Your task to perform on an android device: Turn on the flashlight Image 0: 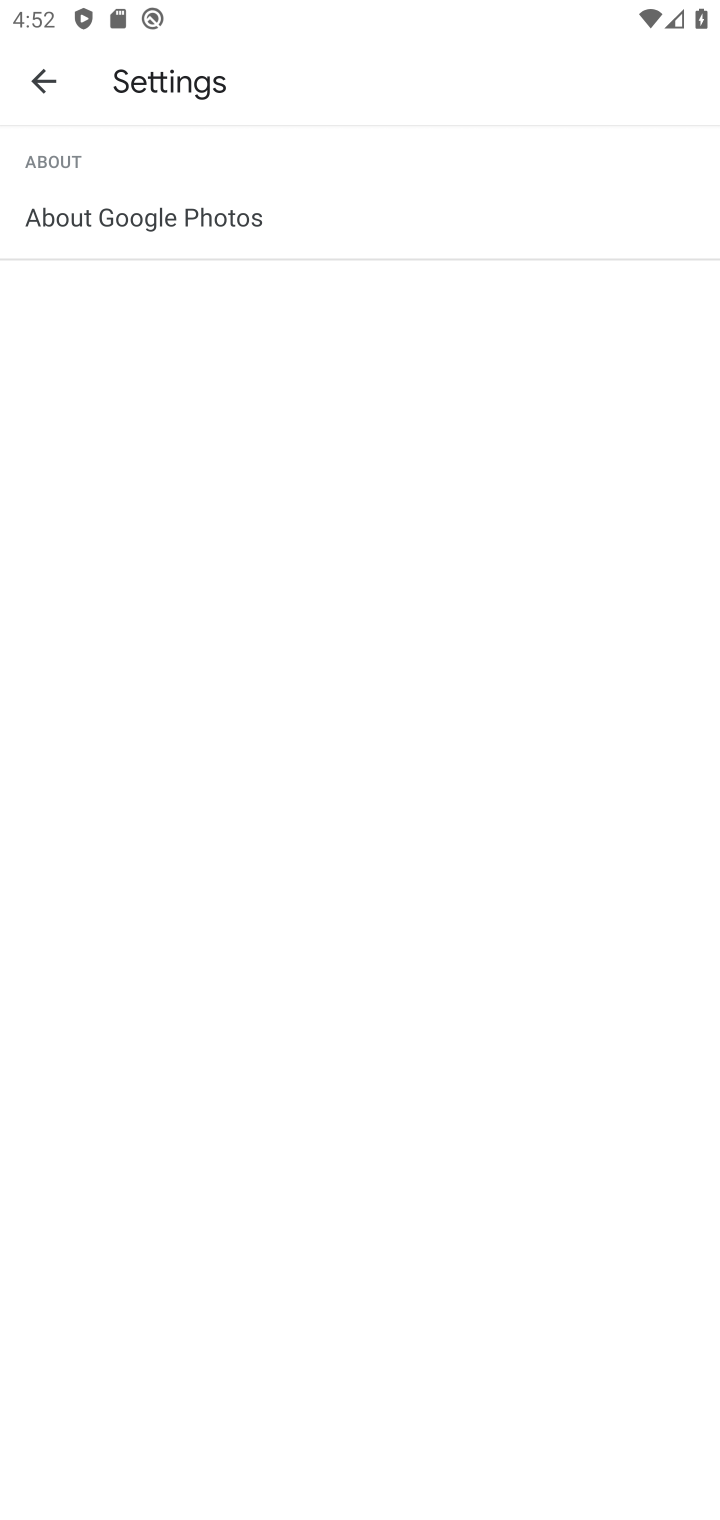
Step 0: press back button
Your task to perform on an android device: Turn on the flashlight Image 1: 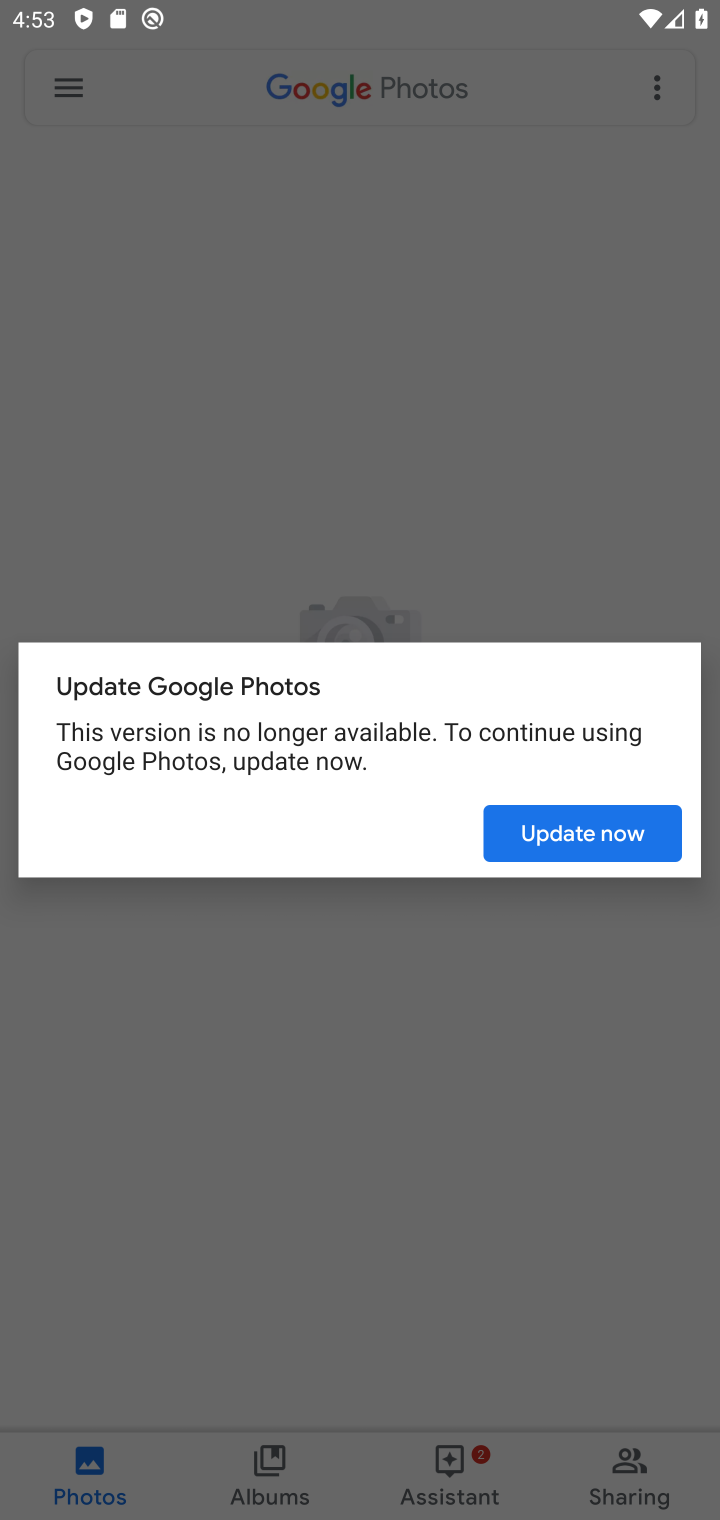
Step 1: press home button
Your task to perform on an android device: Turn on the flashlight Image 2: 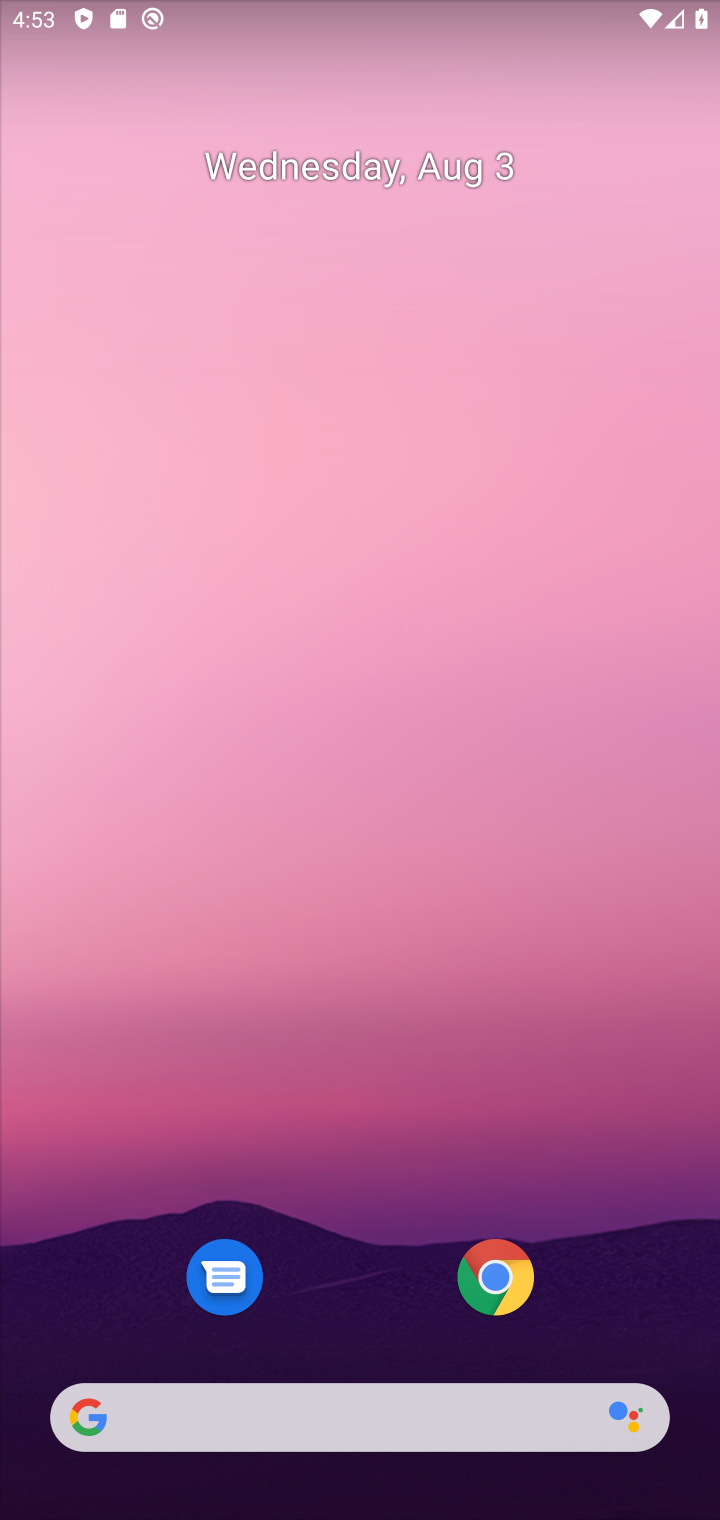
Step 2: drag from (415, 1045) to (548, 0)
Your task to perform on an android device: Turn on the flashlight Image 3: 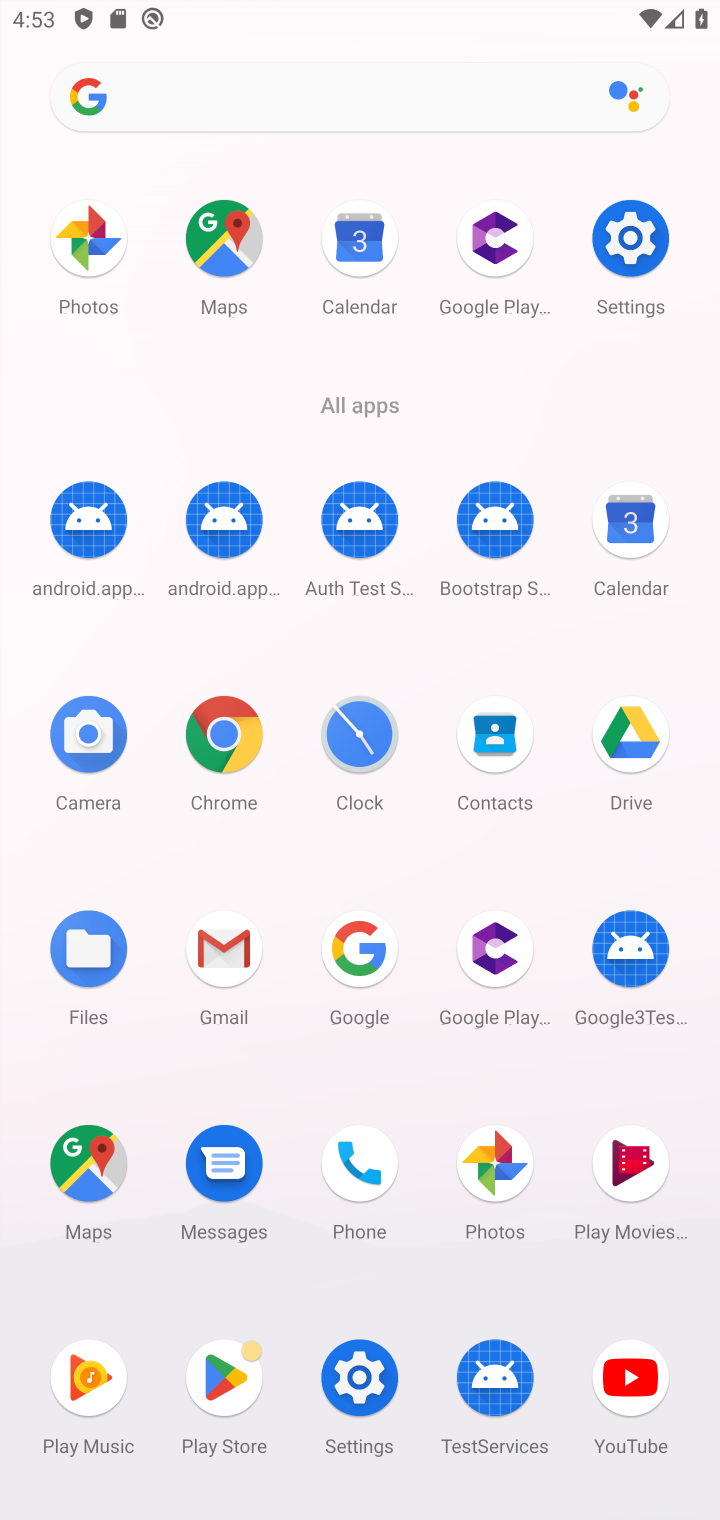
Step 3: click (628, 245)
Your task to perform on an android device: Turn on the flashlight Image 4: 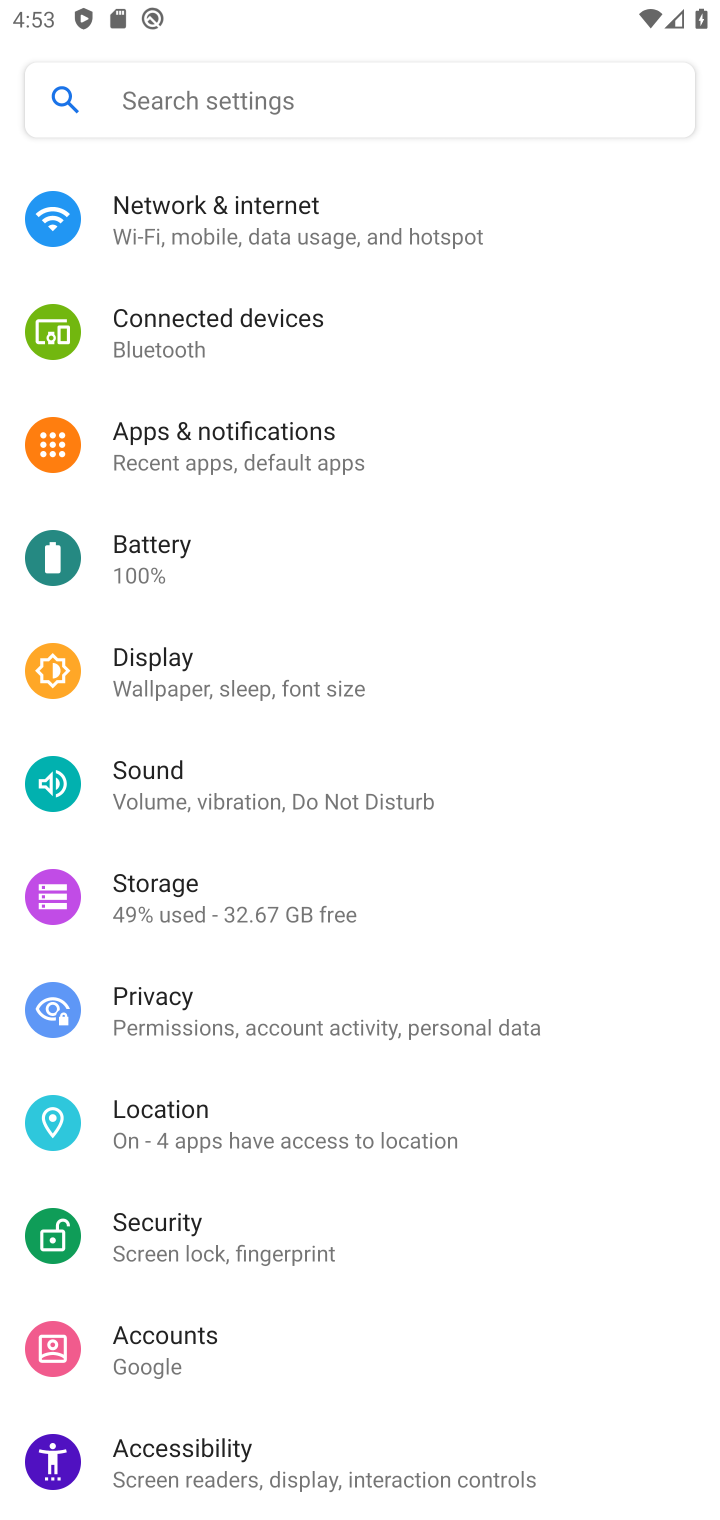
Step 4: click (247, 108)
Your task to perform on an android device: Turn on the flashlight Image 5: 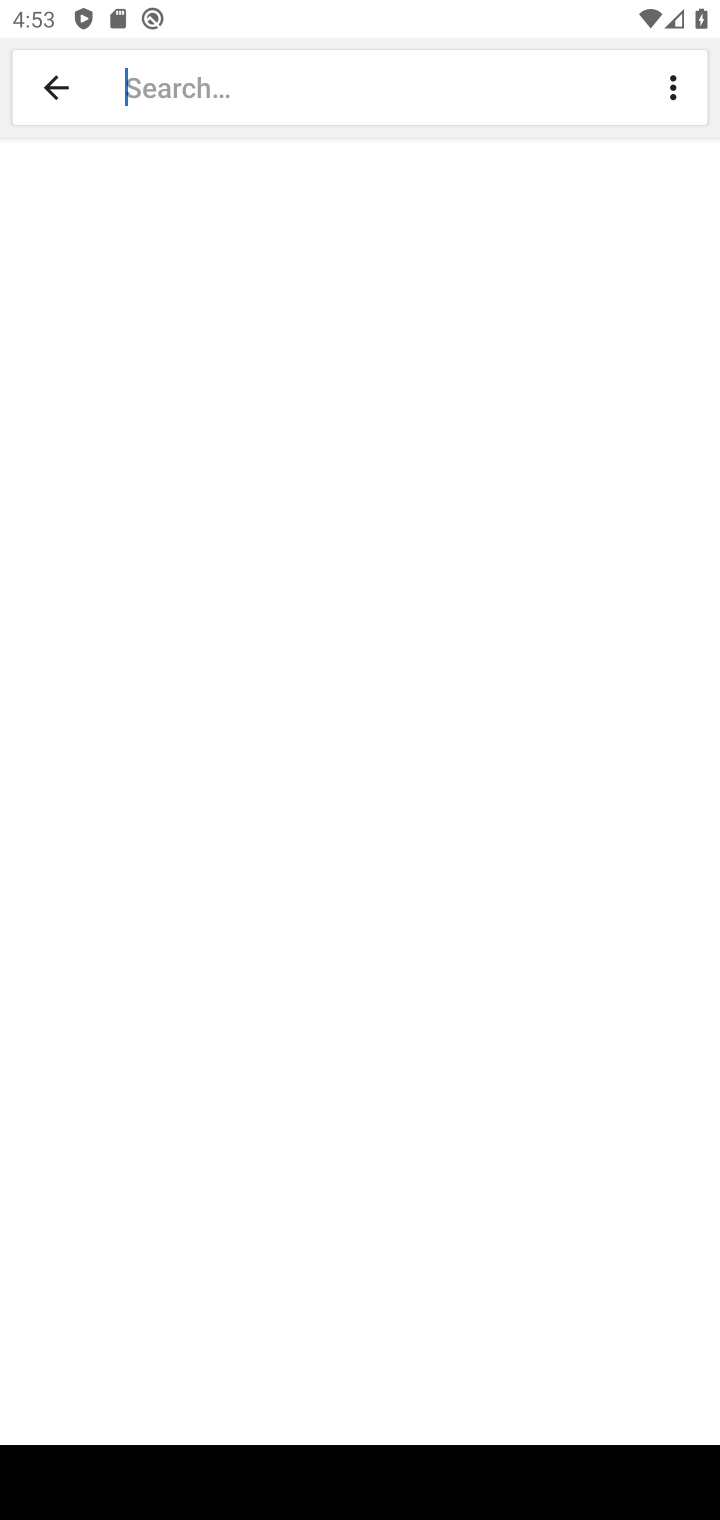
Step 5: type "flashlight"
Your task to perform on an android device: Turn on the flashlight Image 6: 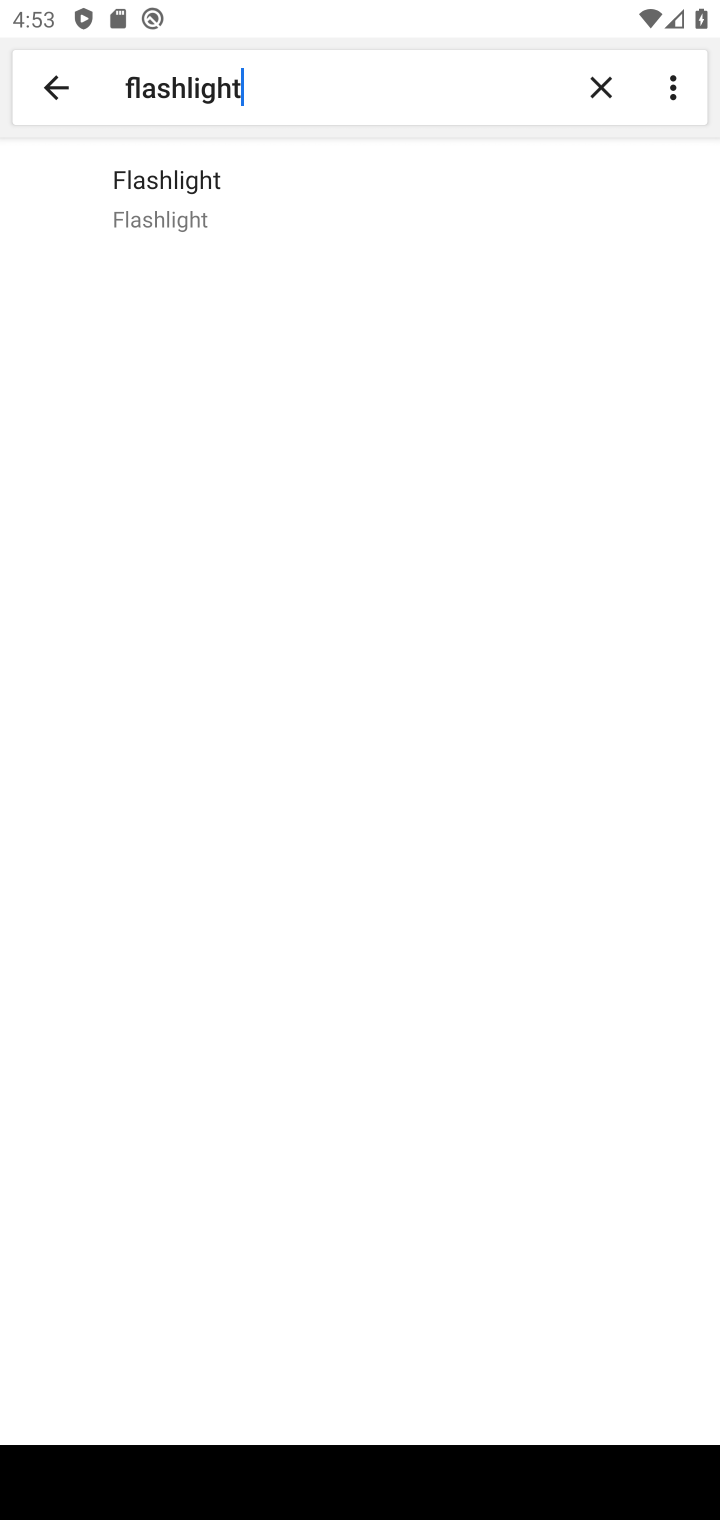
Step 6: click (135, 204)
Your task to perform on an android device: Turn on the flashlight Image 7: 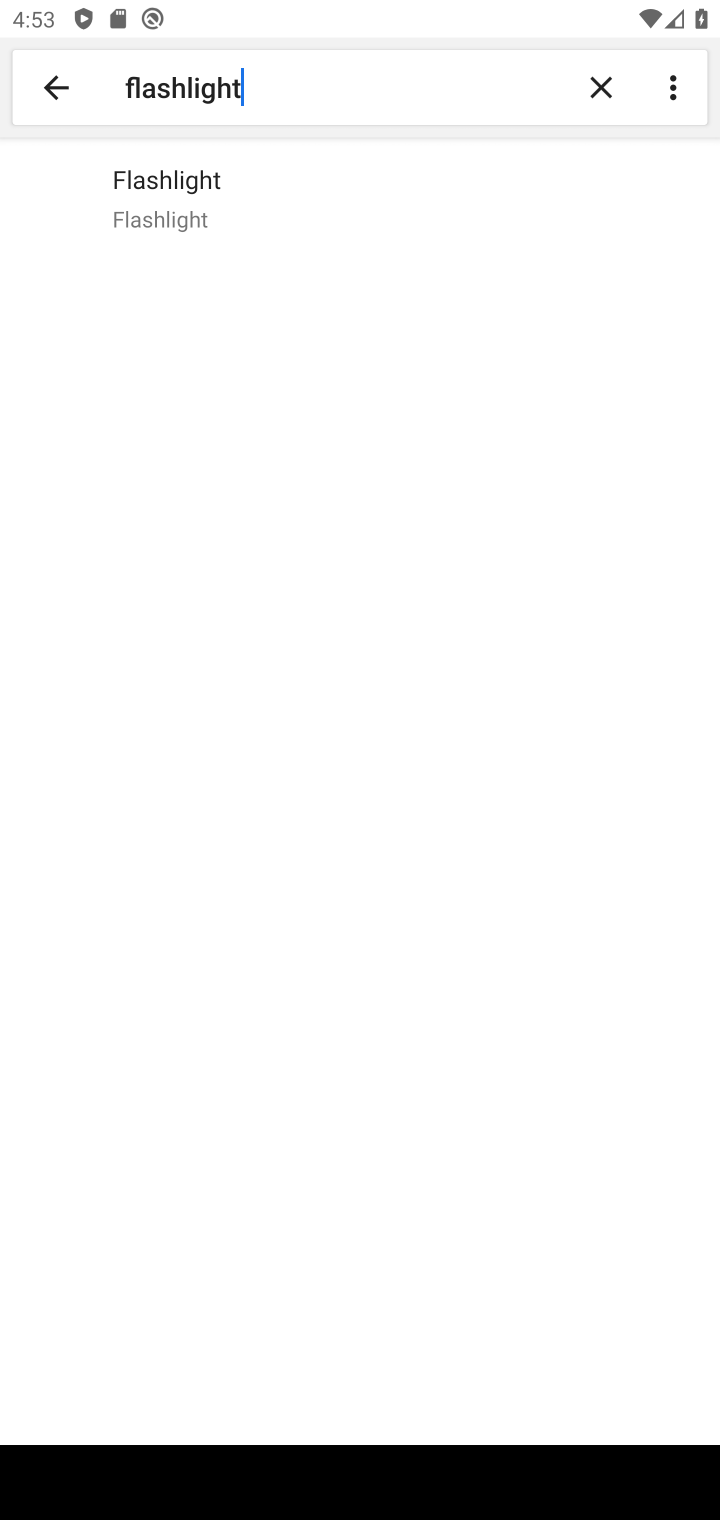
Step 7: click (226, 204)
Your task to perform on an android device: Turn on the flashlight Image 8: 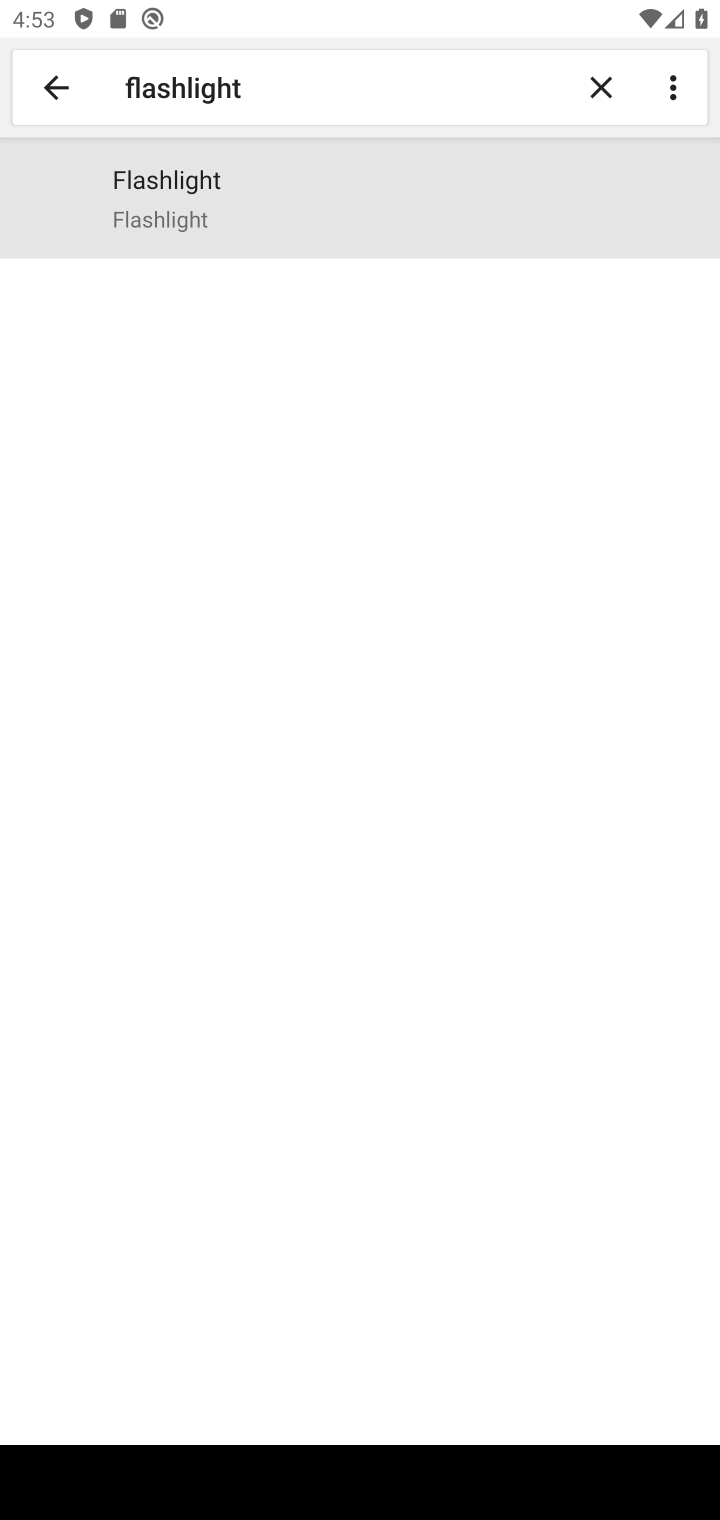
Step 8: task complete